Your task to perform on an android device: Go to sound settings Image 0: 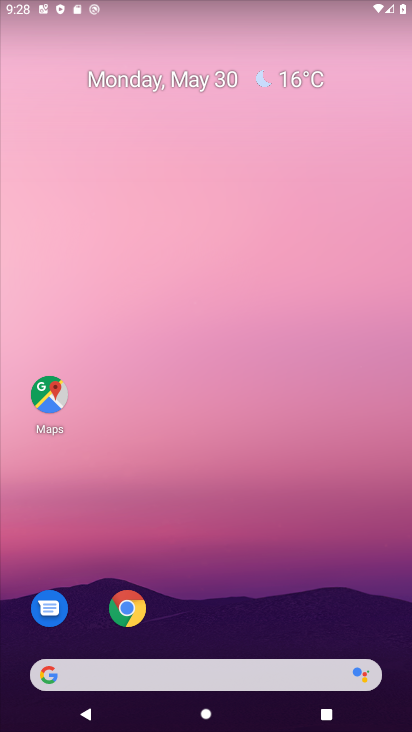
Step 0: drag from (405, 701) to (365, 156)
Your task to perform on an android device: Go to sound settings Image 1: 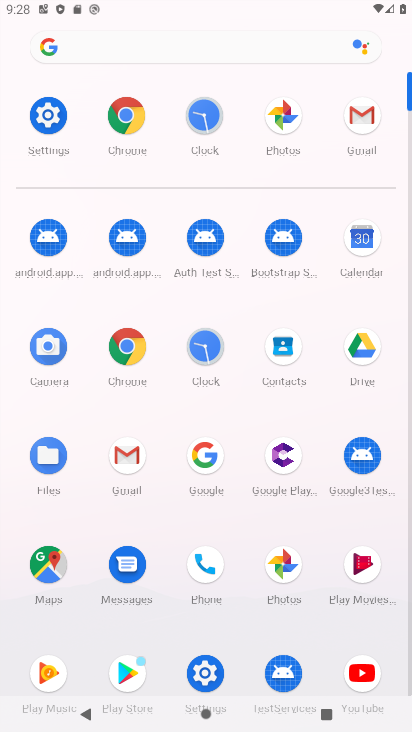
Step 1: click (54, 123)
Your task to perform on an android device: Go to sound settings Image 2: 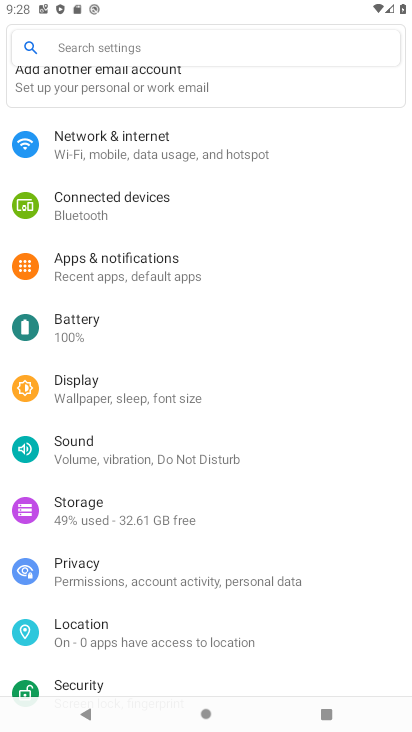
Step 2: click (67, 442)
Your task to perform on an android device: Go to sound settings Image 3: 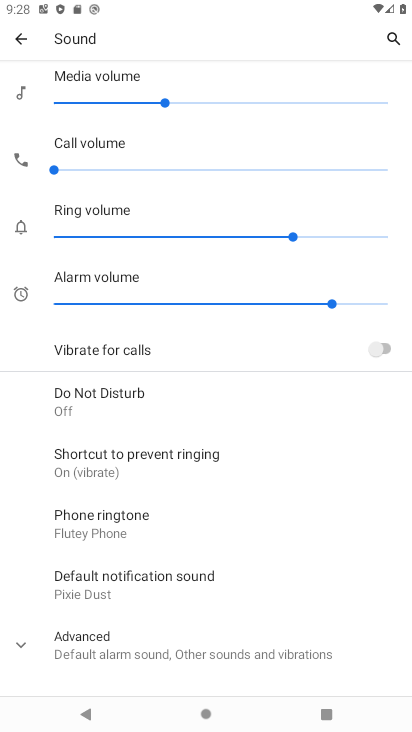
Step 3: task complete